Your task to perform on an android device: Open the calendar app, open the side menu, and click the "Day" option Image 0: 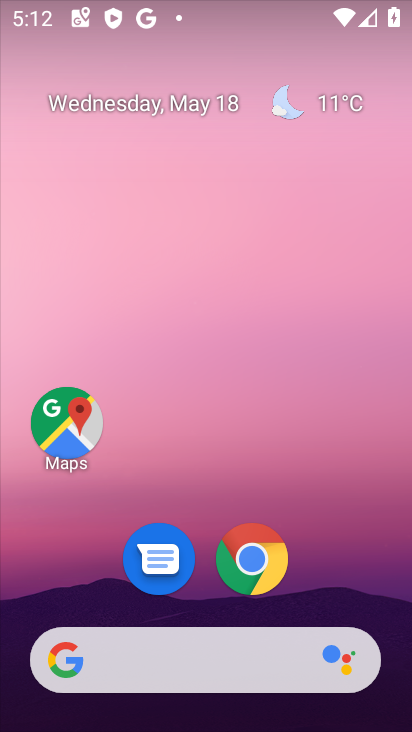
Step 0: drag from (165, 571) to (234, 45)
Your task to perform on an android device: Open the calendar app, open the side menu, and click the "Day" option Image 1: 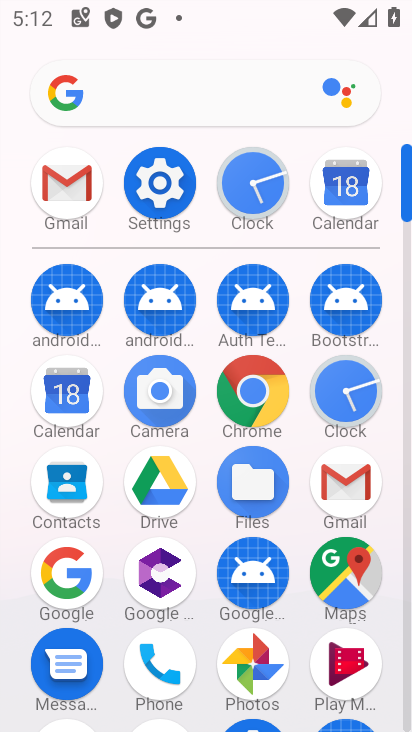
Step 1: click (63, 388)
Your task to perform on an android device: Open the calendar app, open the side menu, and click the "Day" option Image 2: 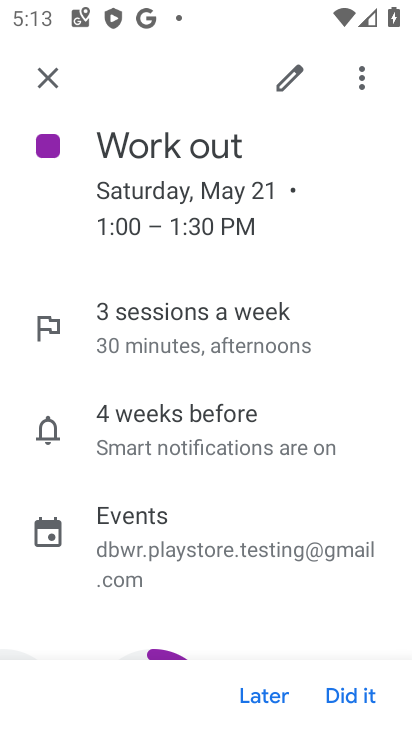
Step 2: click (36, 73)
Your task to perform on an android device: Open the calendar app, open the side menu, and click the "Day" option Image 3: 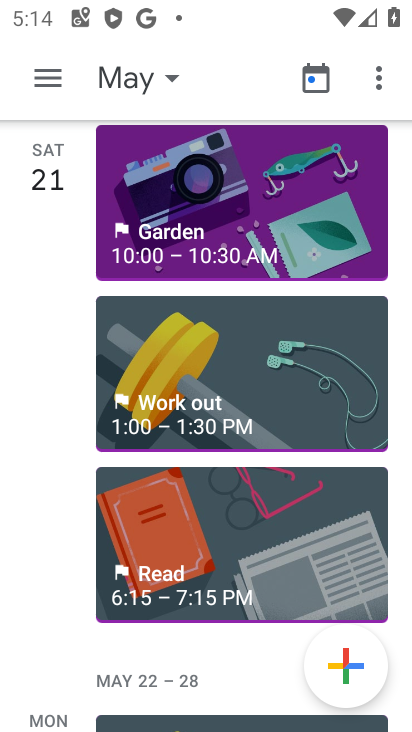
Step 3: click (47, 69)
Your task to perform on an android device: Open the calendar app, open the side menu, and click the "Day" option Image 4: 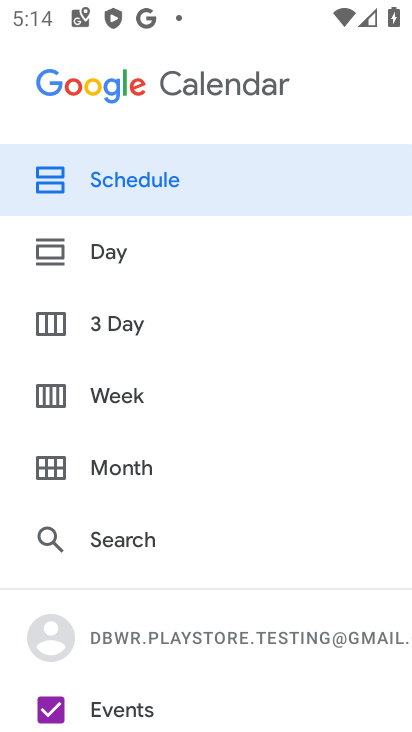
Step 4: click (150, 248)
Your task to perform on an android device: Open the calendar app, open the side menu, and click the "Day" option Image 5: 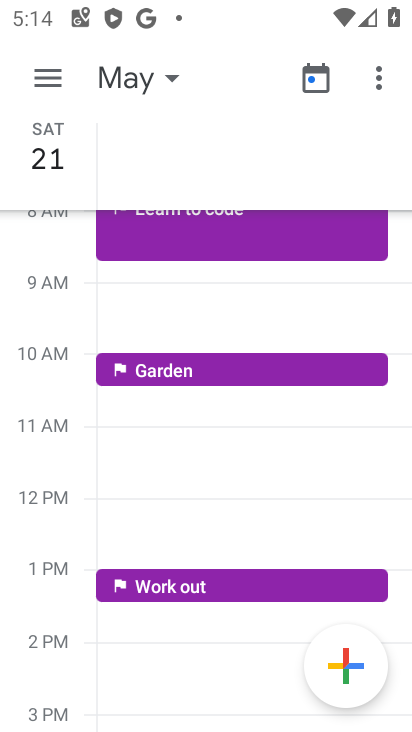
Step 5: task complete